Your task to perform on an android device: open the mobile data screen to see how much data has been used Image 0: 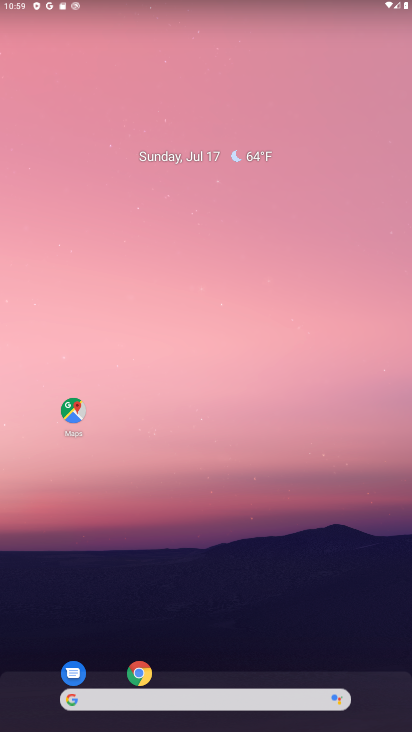
Step 0: drag from (233, 664) to (246, 74)
Your task to perform on an android device: open the mobile data screen to see how much data has been used Image 1: 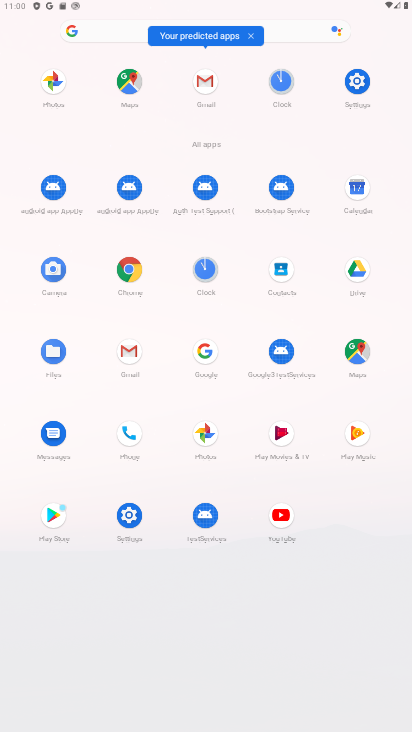
Step 1: click (359, 84)
Your task to perform on an android device: open the mobile data screen to see how much data has been used Image 2: 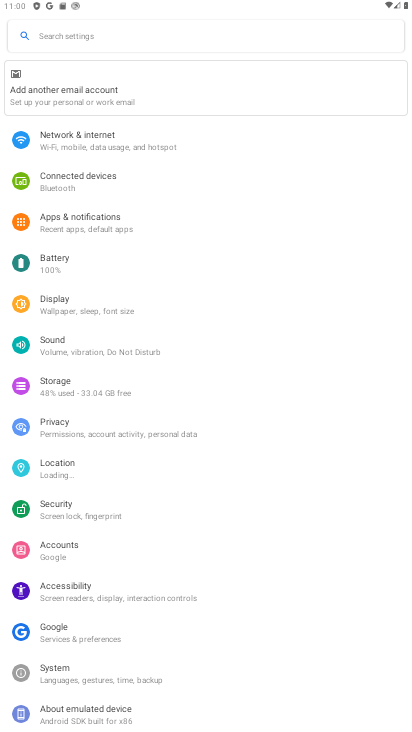
Step 2: click (108, 137)
Your task to perform on an android device: open the mobile data screen to see how much data has been used Image 3: 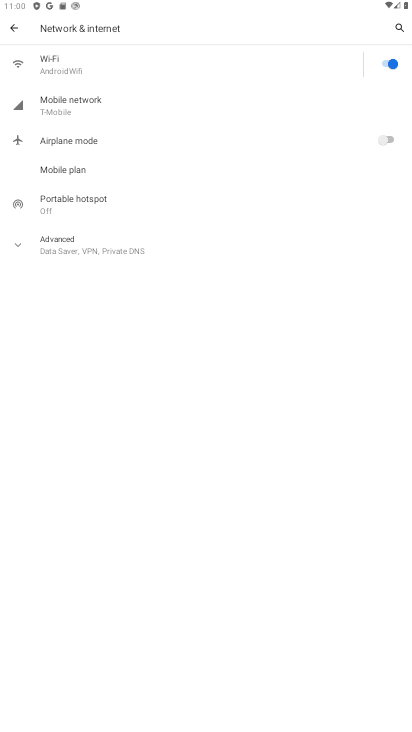
Step 3: click (95, 100)
Your task to perform on an android device: open the mobile data screen to see how much data has been used Image 4: 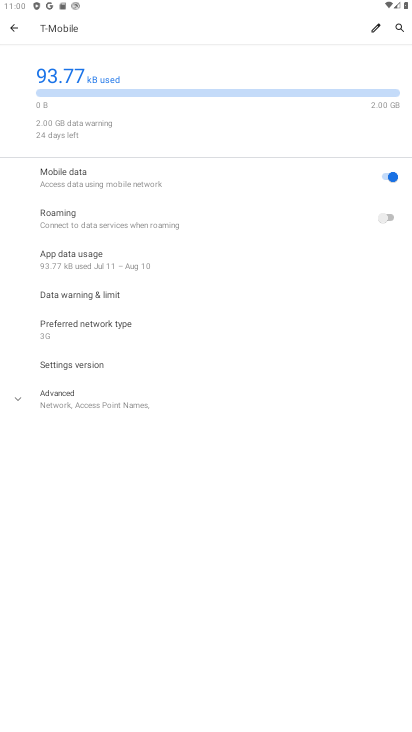
Step 4: task complete